Your task to perform on an android device: Go to battery settings Image 0: 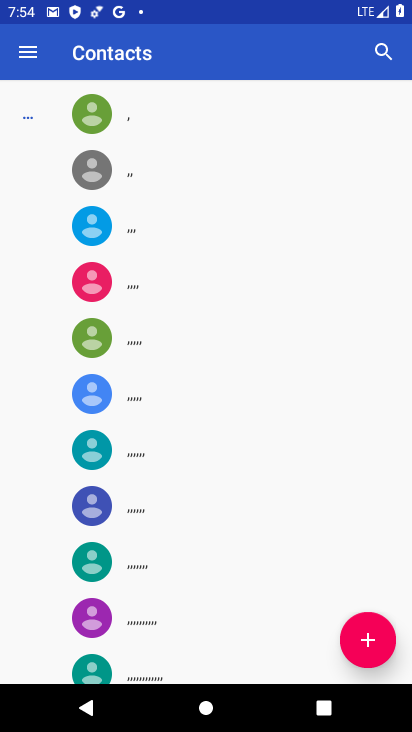
Step 0: press home button
Your task to perform on an android device: Go to battery settings Image 1: 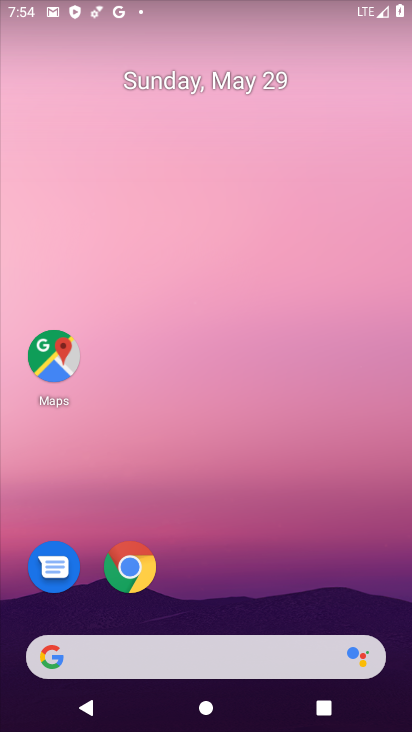
Step 1: drag from (197, 468) to (197, 304)
Your task to perform on an android device: Go to battery settings Image 2: 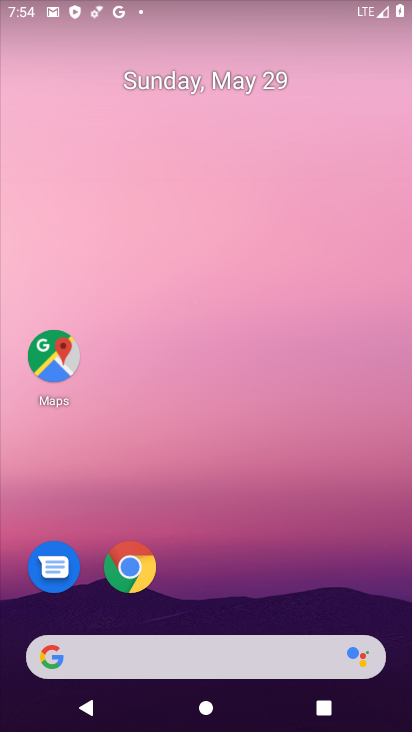
Step 2: drag from (260, 694) to (275, 214)
Your task to perform on an android device: Go to battery settings Image 3: 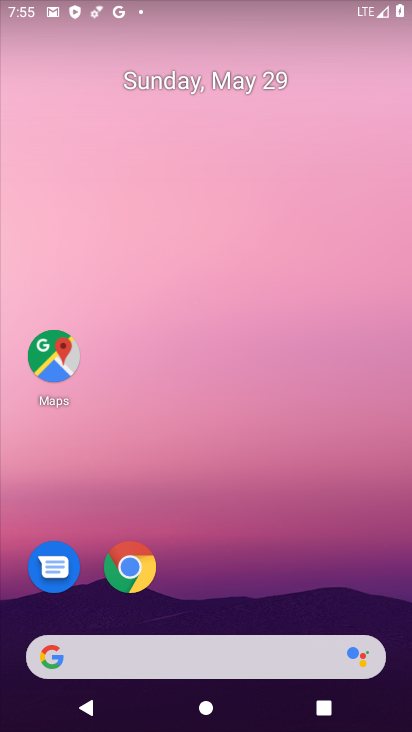
Step 3: drag from (235, 424) to (236, 352)
Your task to perform on an android device: Go to battery settings Image 4: 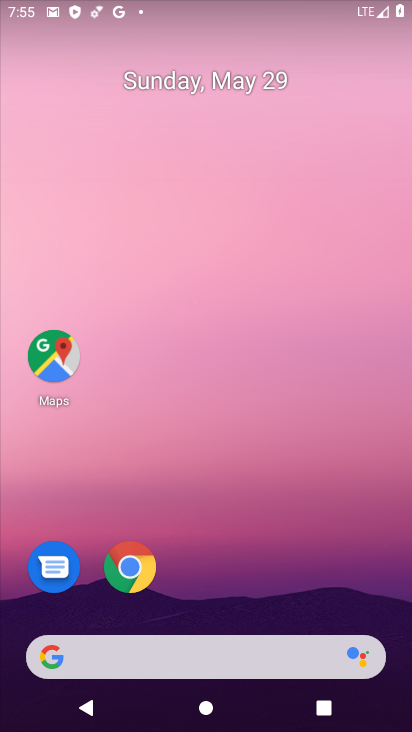
Step 4: drag from (208, 523) to (191, 204)
Your task to perform on an android device: Go to battery settings Image 5: 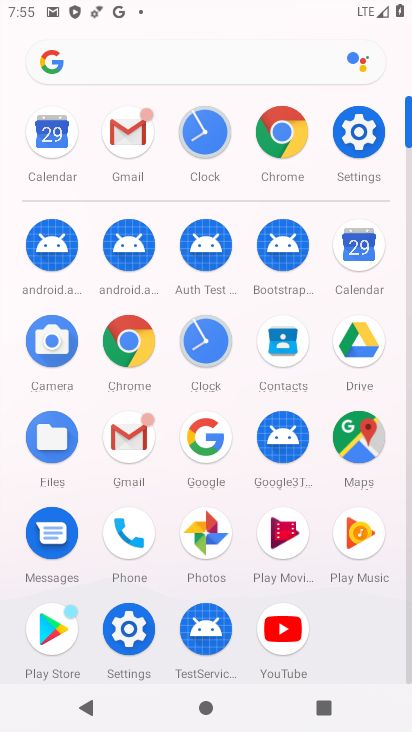
Step 5: click (349, 139)
Your task to perform on an android device: Go to battery settings Image 6: 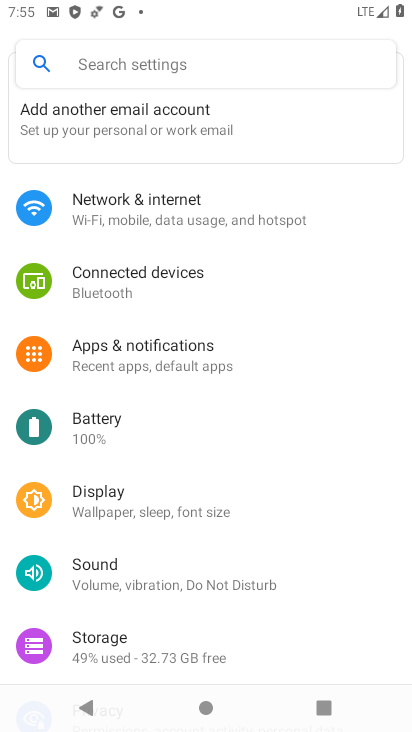
Step 6: click (101, 421)
Your task to perform on an android device: Go to battery settings Image 7: 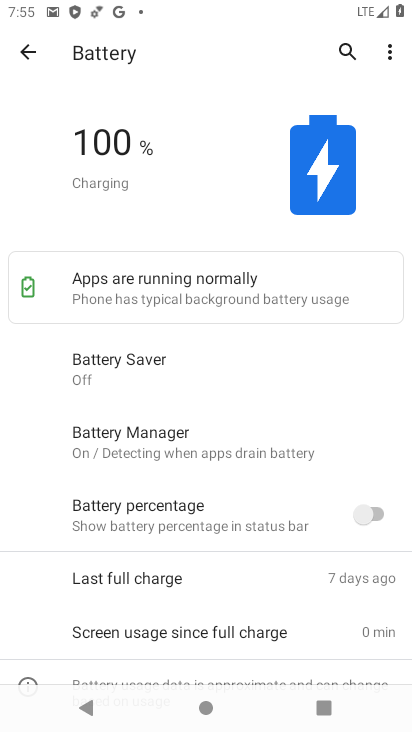
Step 7: task complete